Your task to perform on an android device: Open settings on Google Maps Image 0: 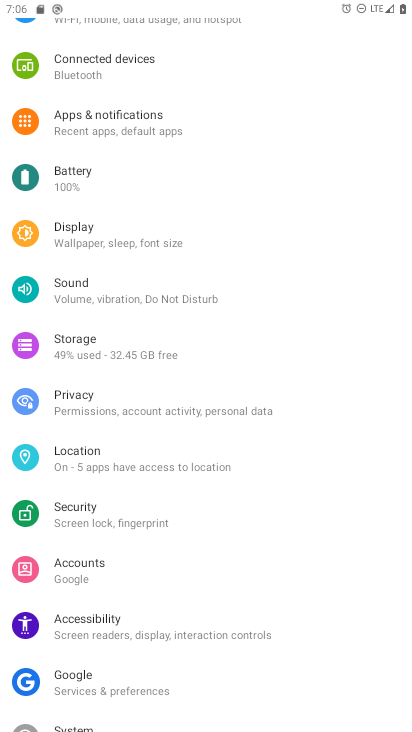
Step 0: press back button
Your task to perform on an android device: Open settings on Google Maps Image 1: 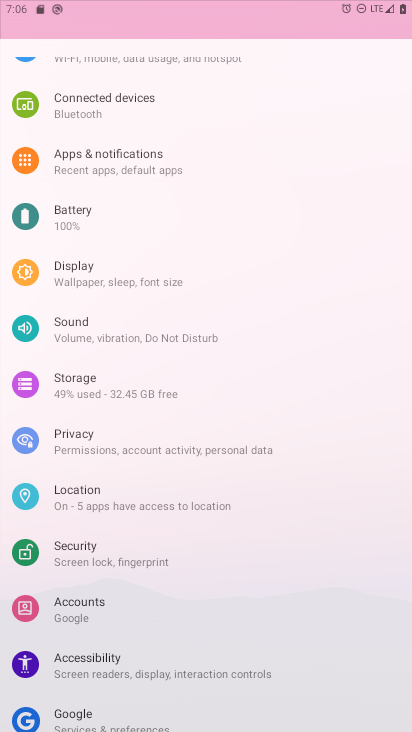
Step 1: press home button
Your task to perform on an android device: Open settings on Google Maps Image 2: 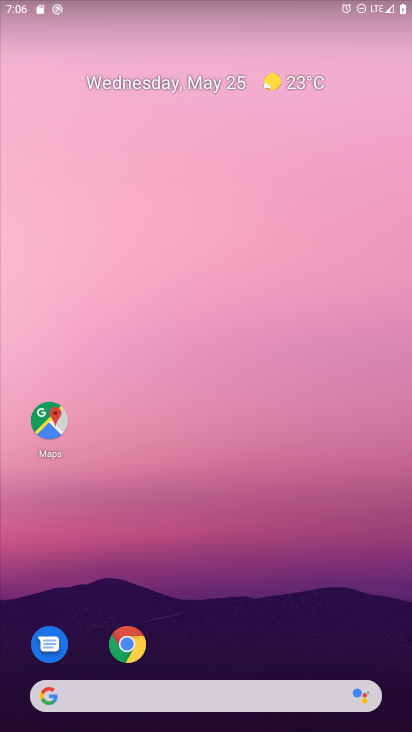
Step 2: drag from (340, 620) to (241, 28)
Your task to perform on an android device: Open settings on Google Maps Image 3: 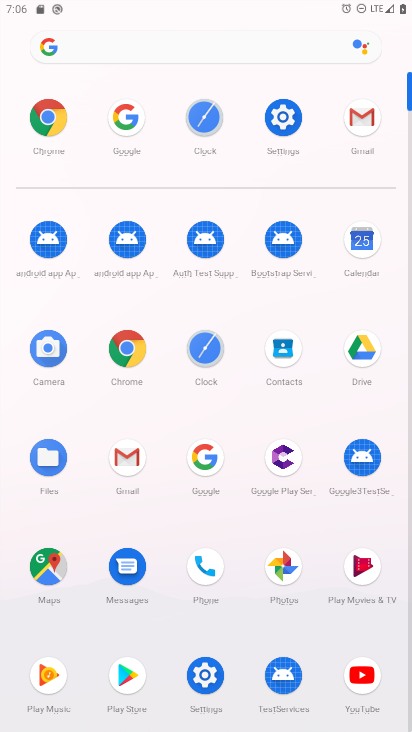
Step 3: click (61, 554)
Your task to perform on an android device: Open settings on Google Maps Image 4: 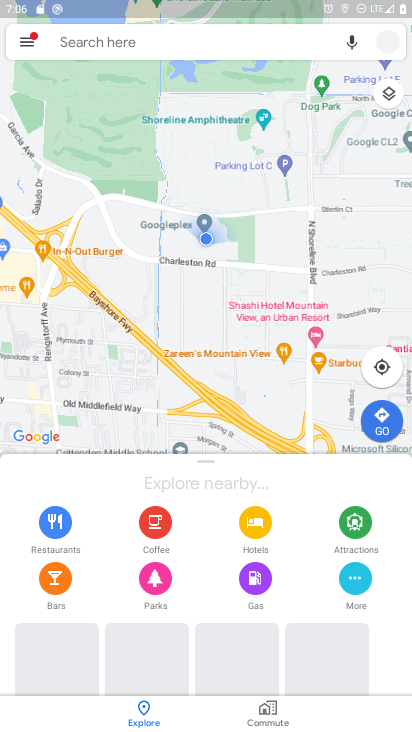
Step 4: click (34, 38)
Your task to perform on an android device: Open settings on Google Maps Image 5: 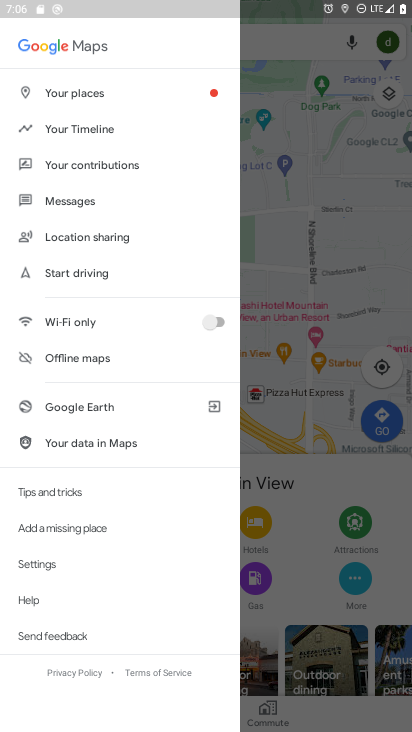
Step 5: click (63, 556)
Your task to perform on an android device: Open settings on Google Maps Image 6: 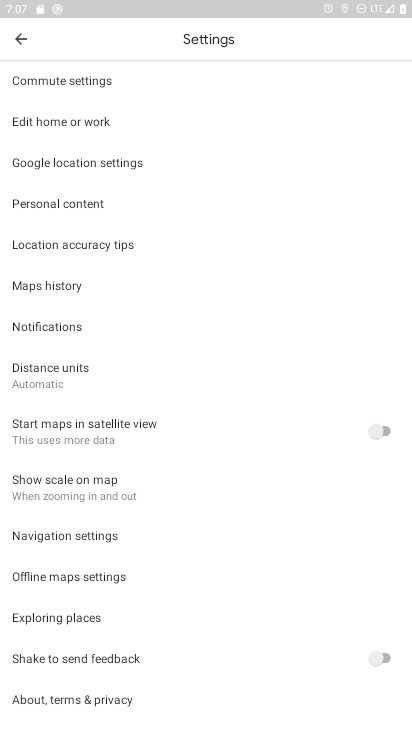
Step 6: task complete